Your task to perform on an android device: Open the web browser Image 0: 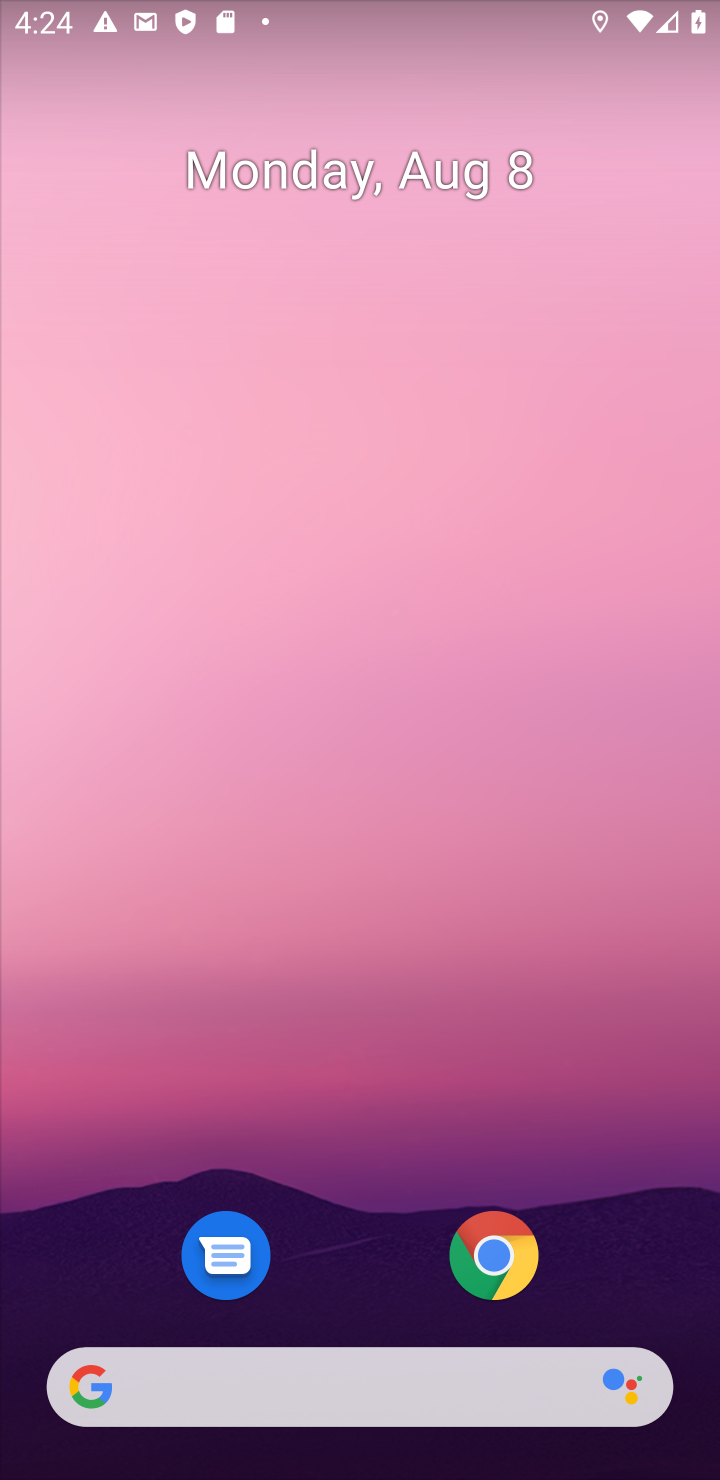
Step 0: click (499, 1259)
Your task to perform on an android device: Open the web browser Image 1: 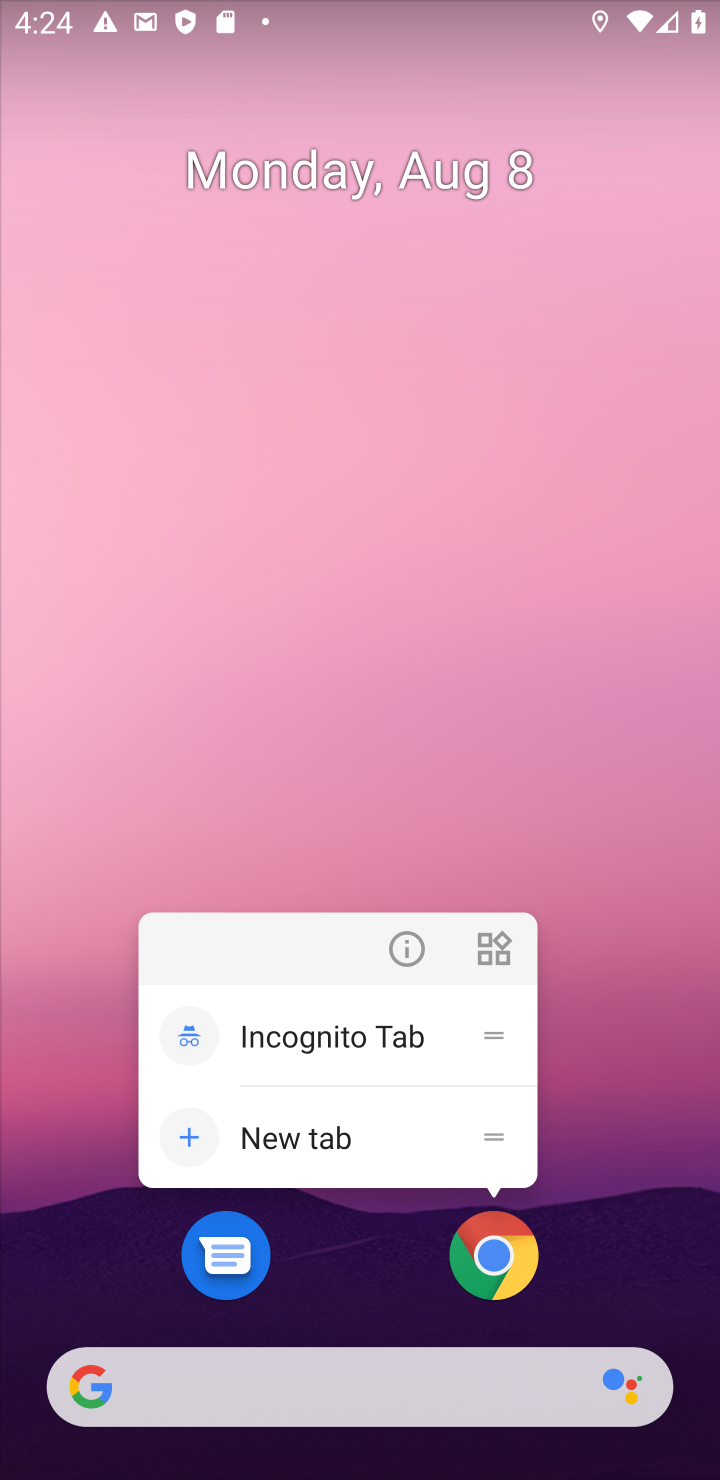
Step 1: click (499, 1259)
Your task to perform on an android device: Open the web browser Image 2: 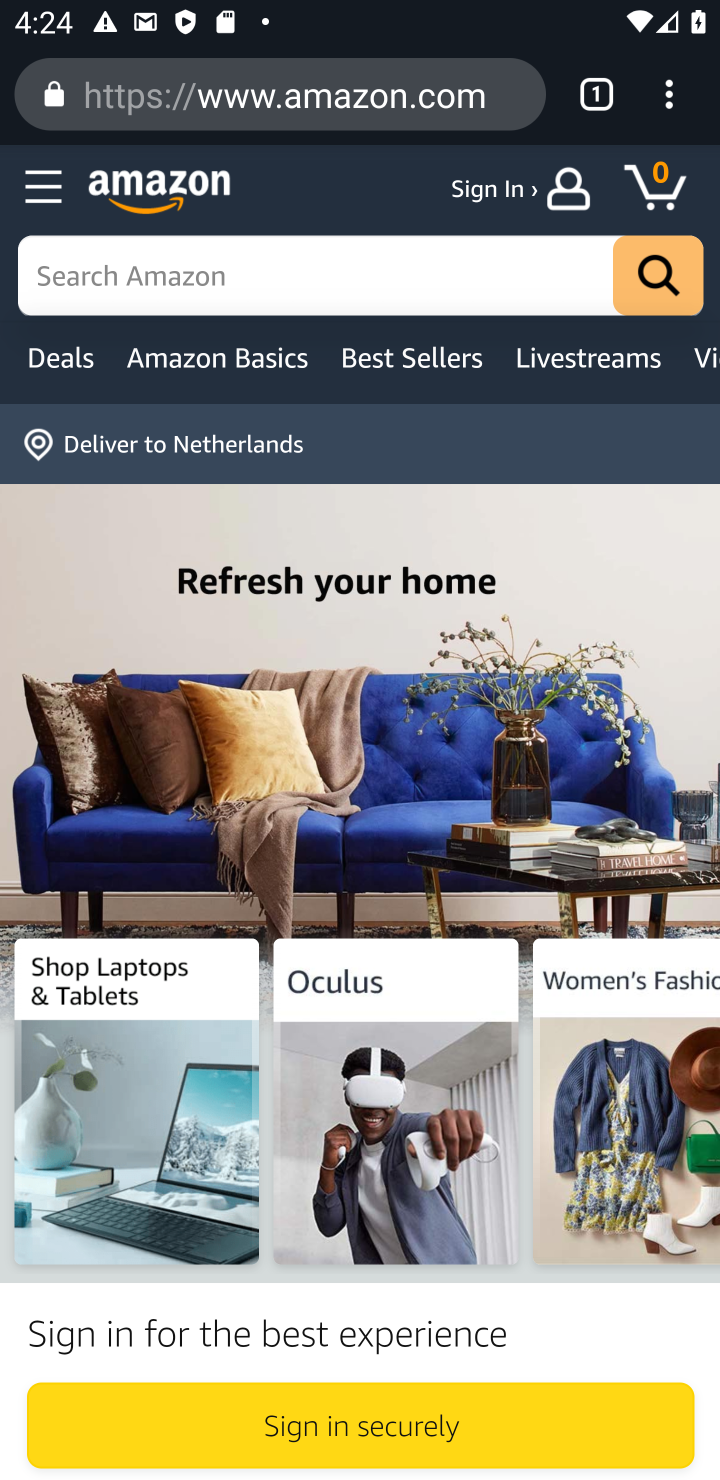
Step 2: task complete